Your task to perform on an android device: toggle javascript in the chrome app Image 0: 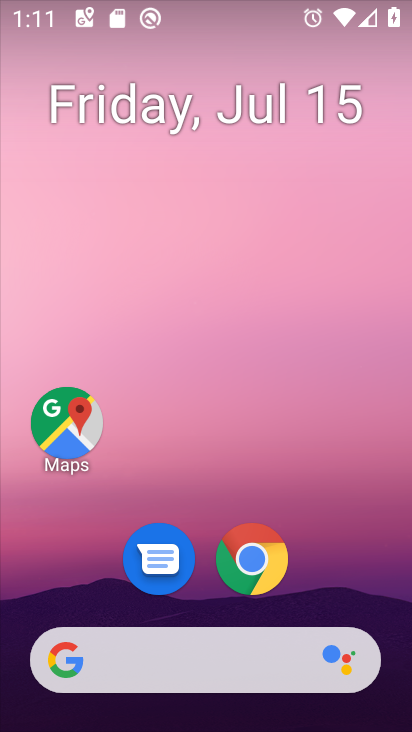
Step 0: drag from (355, 591) to (357, 146)
Your task to perform on an android device: toggle javascript in the chrome app Image 1: 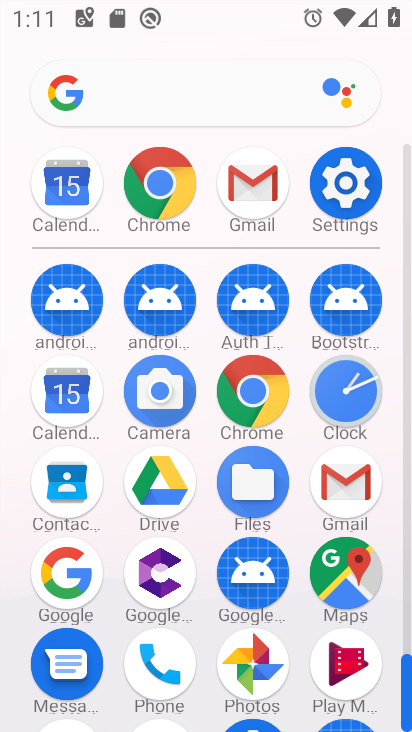
Step 1: click (269, 397)
Your task to perform on an android device: toggle javascript in the chrome app Image 2: 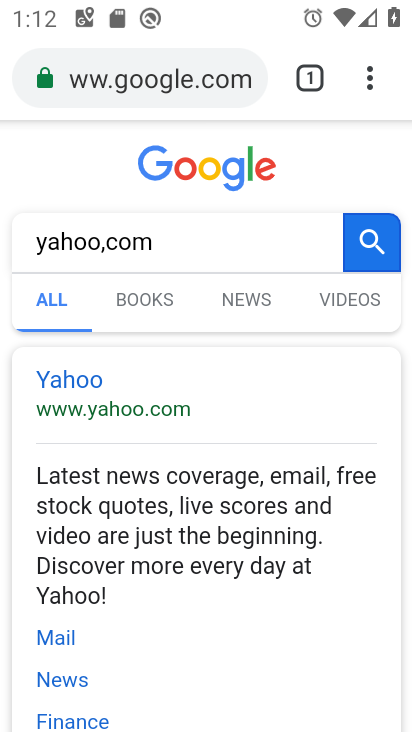
Step 2: click (370, 87)
Your task to perform on an android device: toggle javascript in the chrome app Image 3: 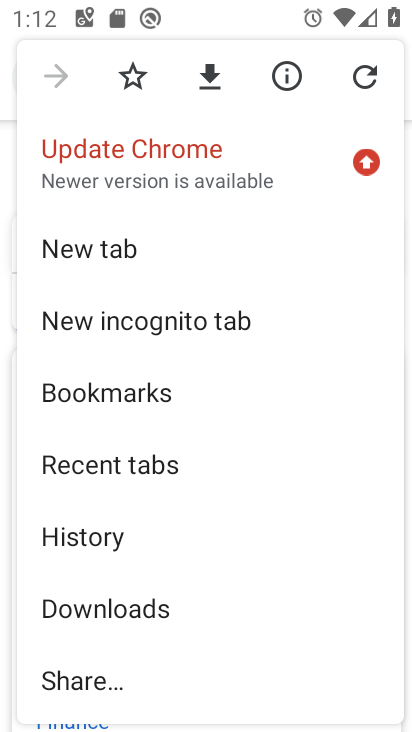
Step 3: drag from (324, 439) to (323, 380)
Your task to perform on an android device: toggle javascript in the chrome app Image 4: 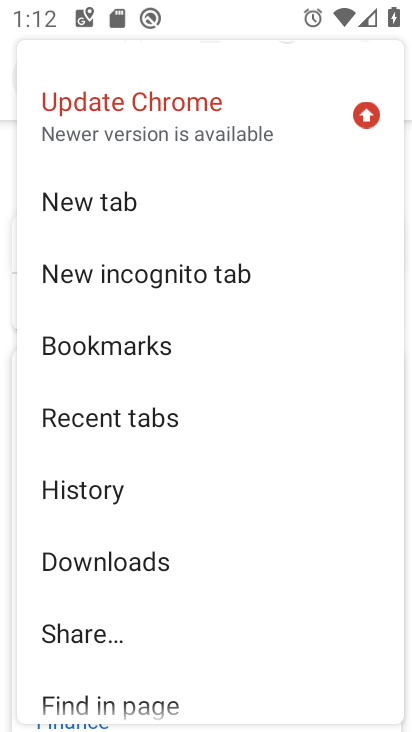
Step 4: drag from (302, 445) to (302, 374)
Your task to perform on an android device: toggle javascript in the chrome app Image 5: 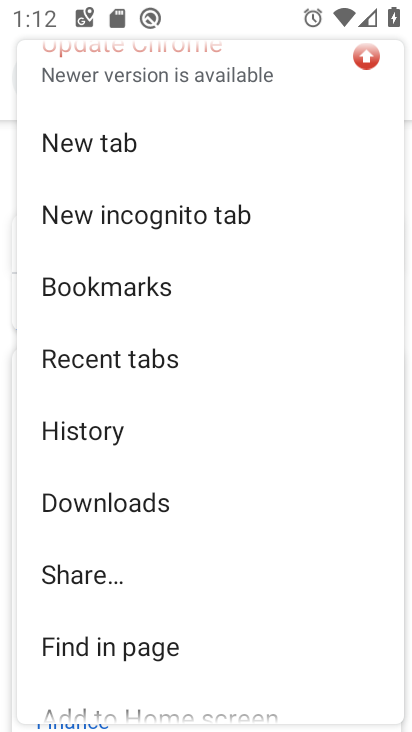
Step 5: drag from (309, 431) to (310, 365)
Your task to perform on an android device: toggle javascript in the chrome app Image 6: 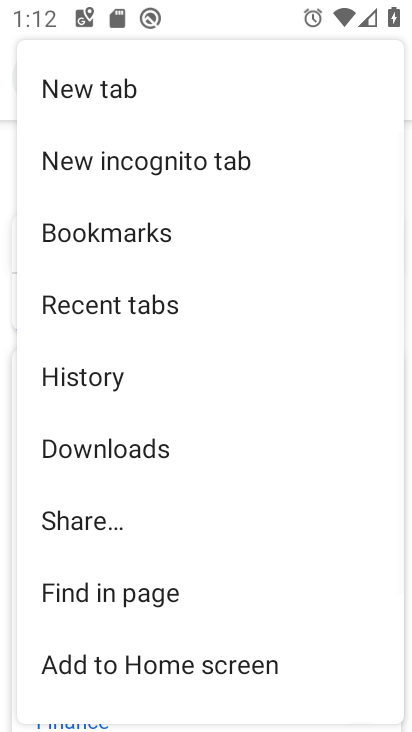
Step 6: drag from (301, 444) to (298, 355)
Your task to perform on an android device: toggle javascript in the chrome app Image 7: 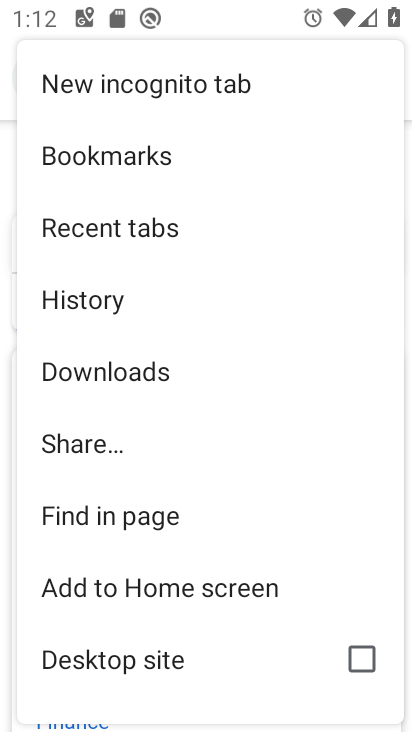
Step 7: drag from (268, 458) to (268, 382)
Your task to perform on an android device: toggle javascript in the chrome app Image 8: 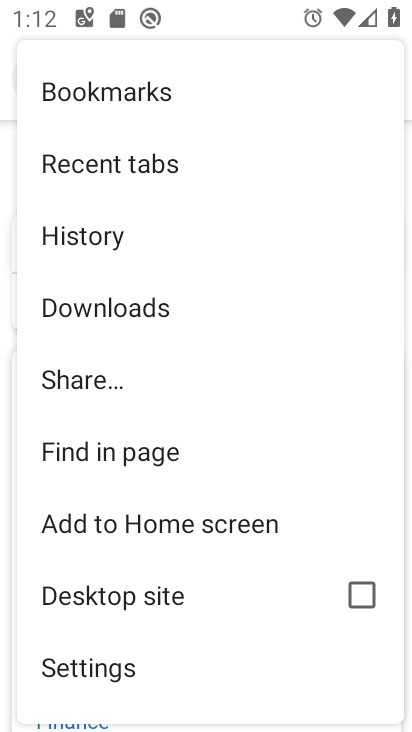
Step 8: drag from (300, 460) to (299, 359)
Your task to perform on an android device: toggle javascript in the chrome app Image 9: 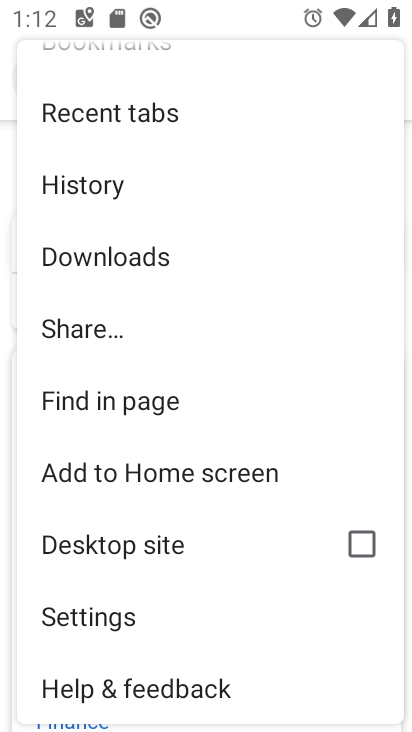
Step 9: drag from (265, 480) to (265, 377)
Your task to perform on an android device: toggle javascript in the chrome app Image 10: 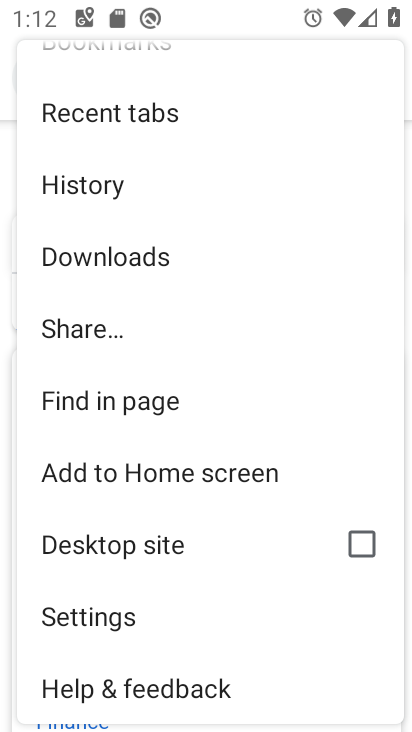
Step 10: click (190, 601)
Your task to perform on an android device: toggle javascript in the chrome app Image 11: 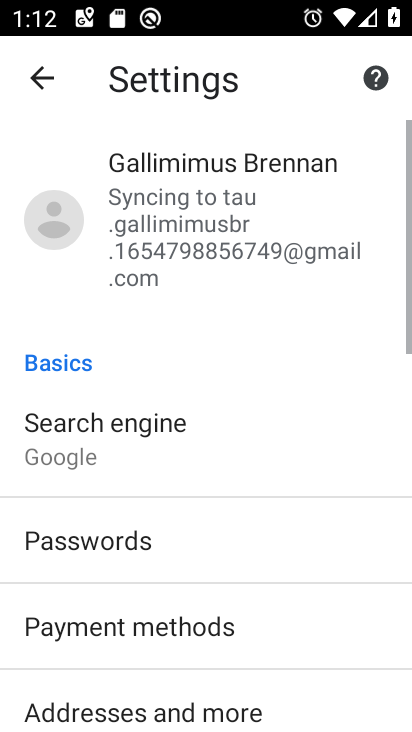
Step 11: drag from (343, 576) to (351, 487)
Your task to perform on an android device: toggle javascript in the chrome app Image 12: 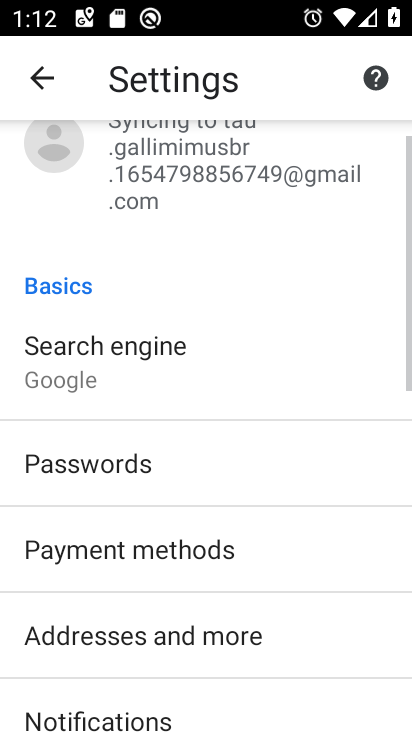
Step 12: drag from (342, 606) to (349, 483)
Your task to perform on an android device: toggle javascript in the chrome app Image 13: 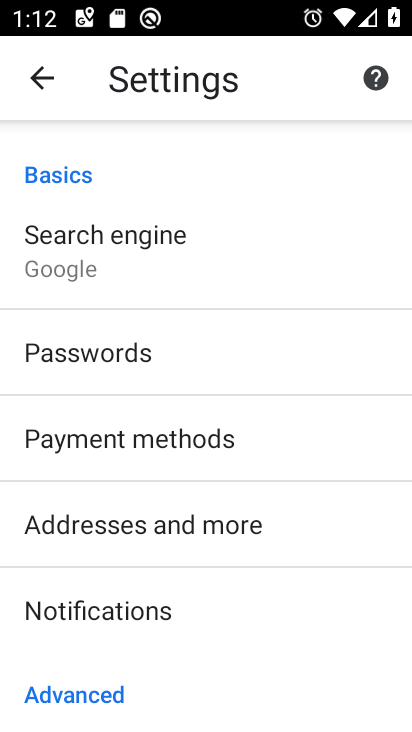
Step 13: drag from (344, 584) to (345, 516)
Your task to perform on an android device: toggle javascript in the chrome app Image 14: 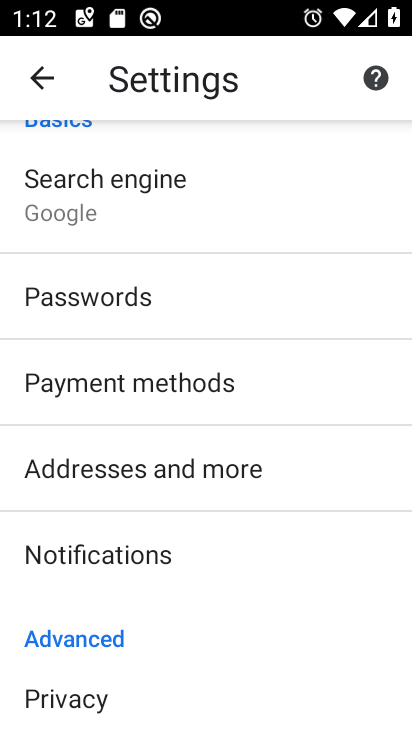
Step 14: drag from (320, 587) to (319, 499)
Your task to perform on an android device: toggle javascript in the chrome app Image 15: 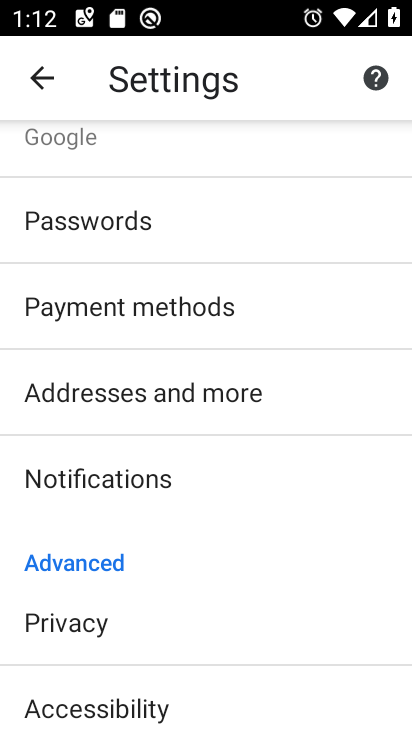
Step 15: drag from (328, 593) to (330, 499)
Your task to perform on an android device: toggle javascript in the chrome app Image 16: 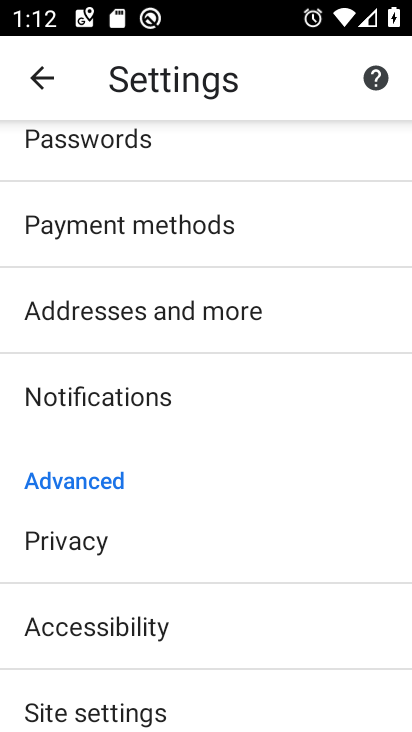
Step 16: drag from (326, 632) to (317, 522)
Your task to perform on an android device: toggle javascript in the chrome app Image 17: 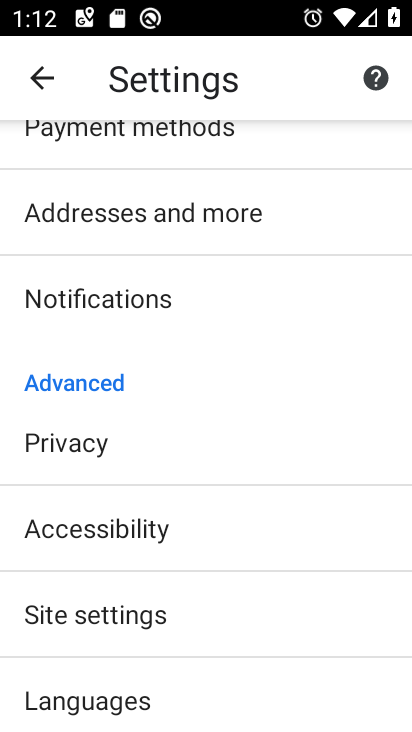
Step 17: drag from (319, 609) to (314, 425)
Your task to perform on an android device: toggle javascript in the chrome app Image 18: 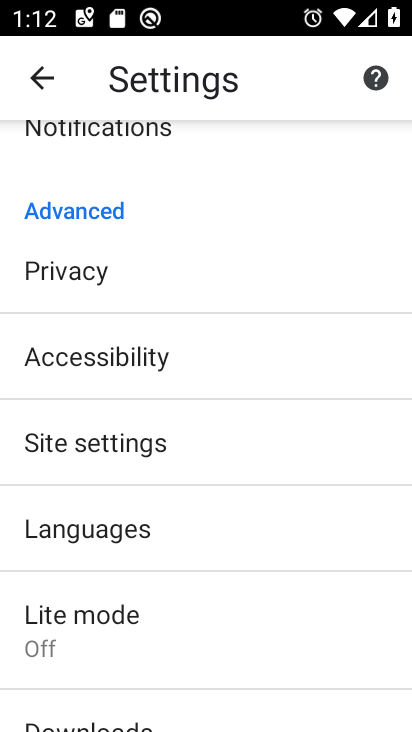
Step 18: click (293, 437)
Your task to perform on an android device: toggle javascript in the chrome app Image 19: 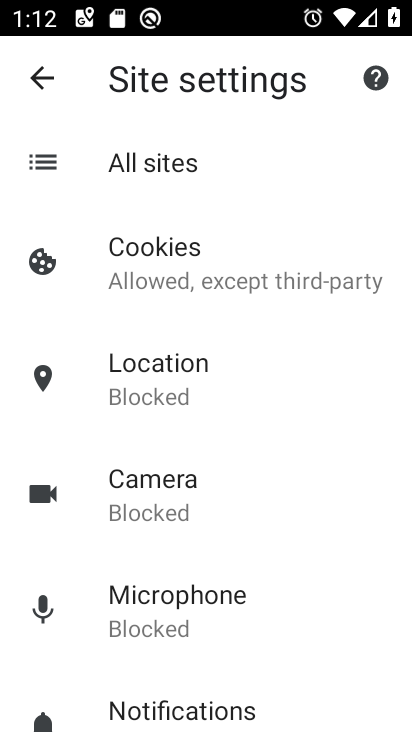
Step 19: drag from (292, 525) to (301, 399)
Your task to perform on an android device: toggle javascript in the chrome app Image 20: 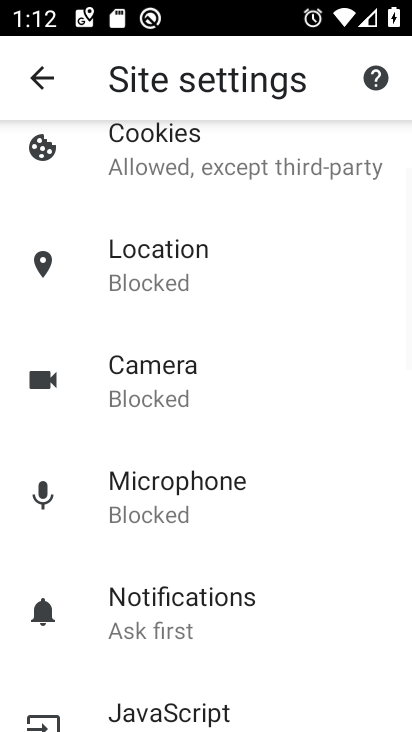
Step 20: drag from (301, 525) to (300, 374)
Your task to perform on an android device: toggle javascript in the chrome app Image 21: 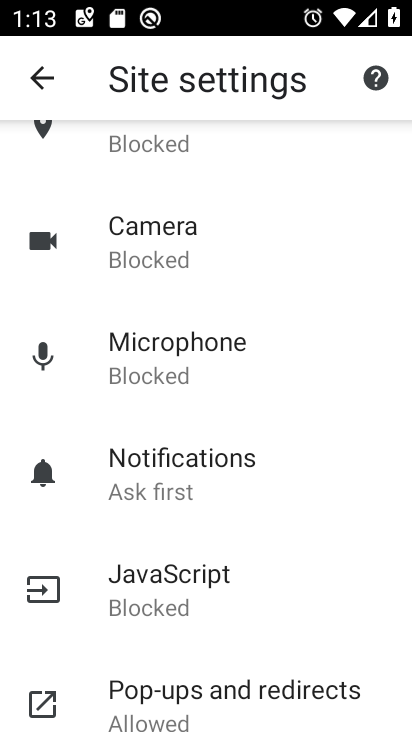
Step 21: drag from (309, 546) to (309, 420)
Your task to perform on an android device: toggle javascript in the chrome app Image 22: 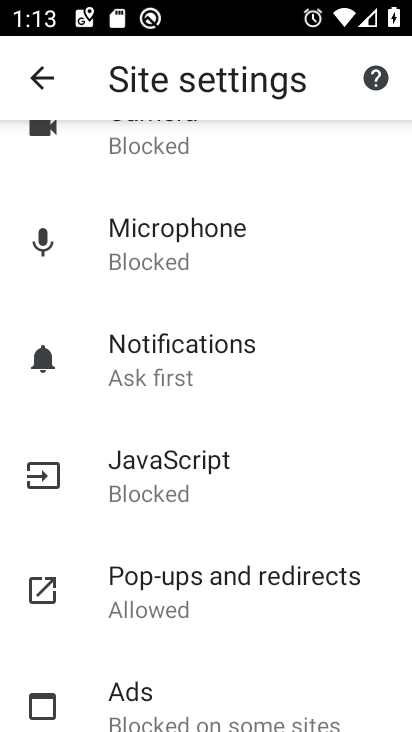
Step 22: click (229, 485)
Your task to perform on an android device: toggle javascript in the chrome app Image 23: 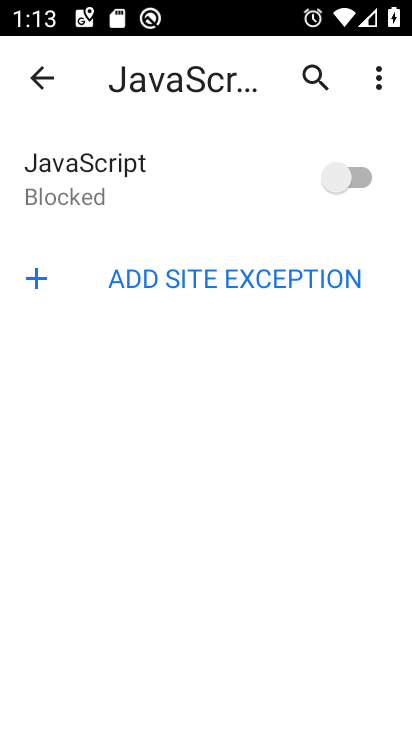
Step 23: click (349, 182)
Your task to perform on an android device: toggle javascript in the chrome app Image 24: 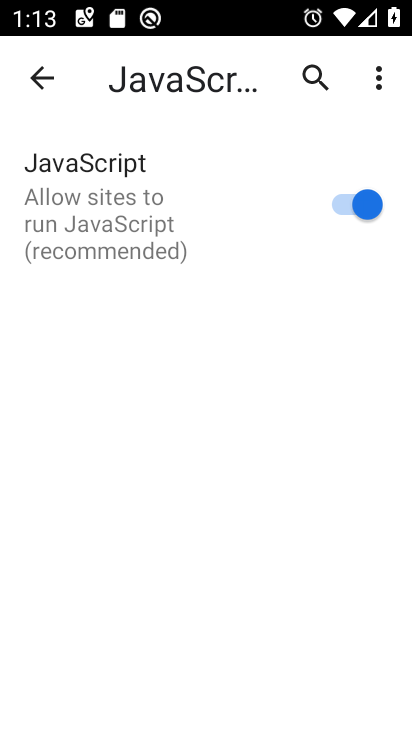
Step 24: task complete